Your task to perform on an android device: turn off smart reply in the gmail app Image 0: 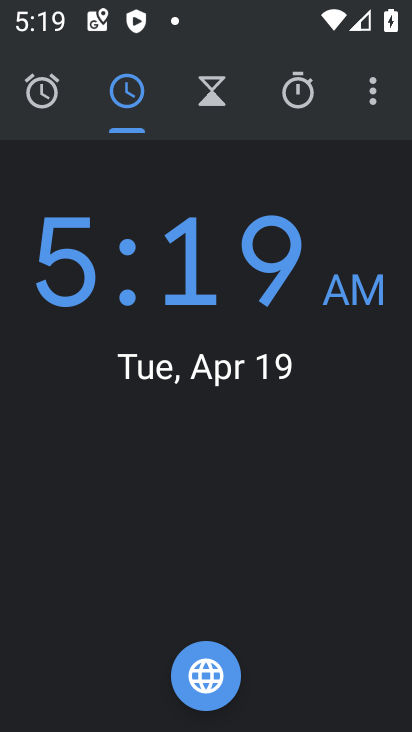
Step 0: press home button
Your task to perform on an android device: turn off smart reply in the gmail app Image 1: 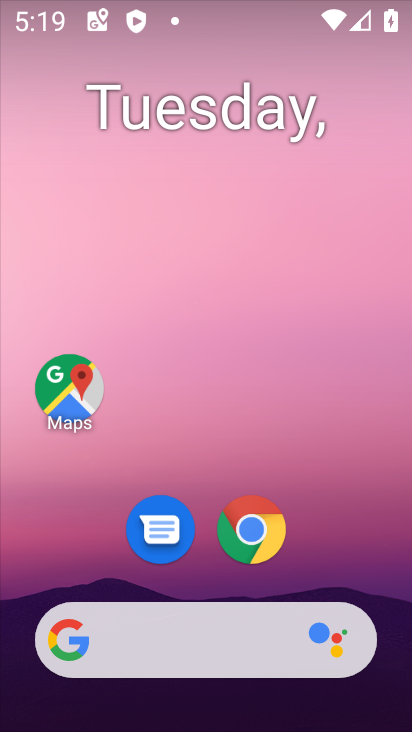
Step 1: drag from (396, 642) to (357, 286)
Your task to perform on an android device: turn off smart reply in the gmail app Image 2: 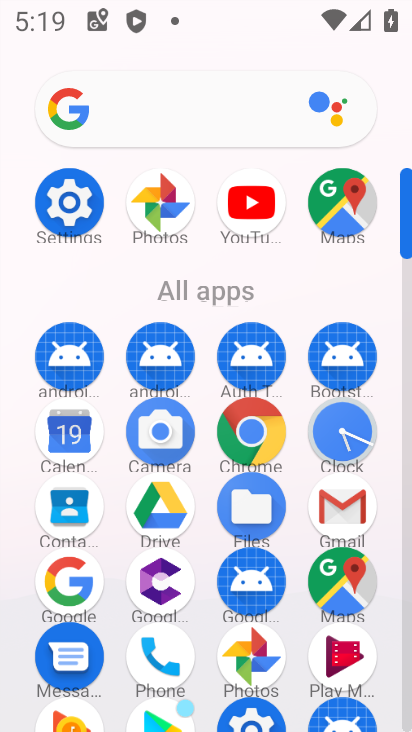
Step 2: click (337, 505)
Your task to perform on an android device: turn off smart reply in the gmail app Image 3: 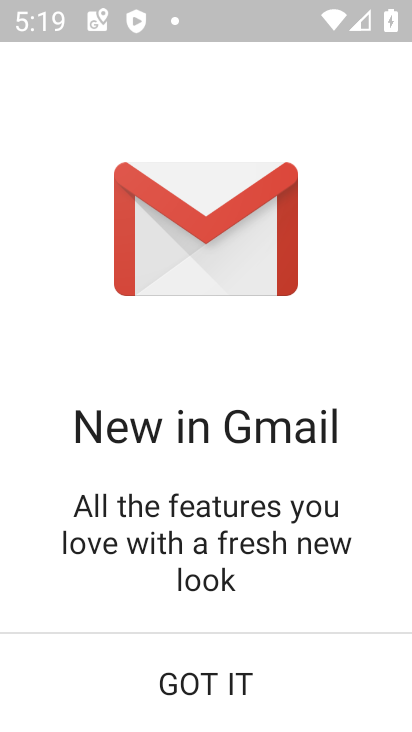
Step 3: click (232, 666)
Your task to perform on an android device: turn off smart reply in the gmail app Image 4: 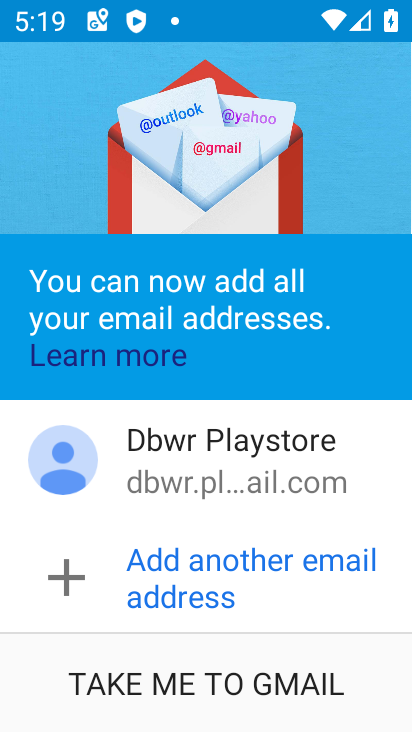
Step 4: click (226, 700)
Your task to perform on an android device: turn off smart reply in the gmail app Image 5: 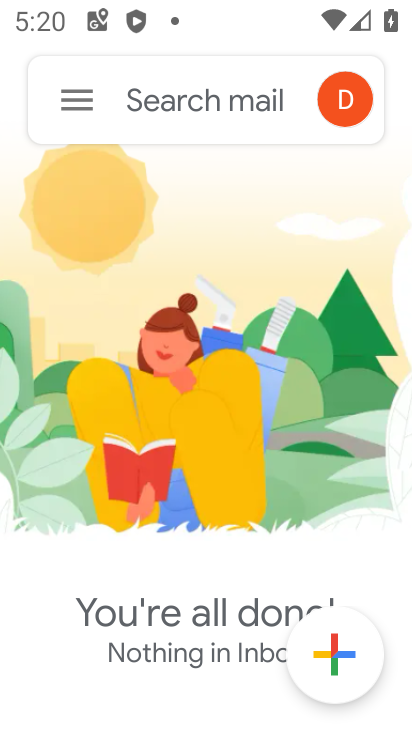
Step 5: click (76, 99)
Your task to perform on an android device: turn off smart reply in the gmail app Image 6: 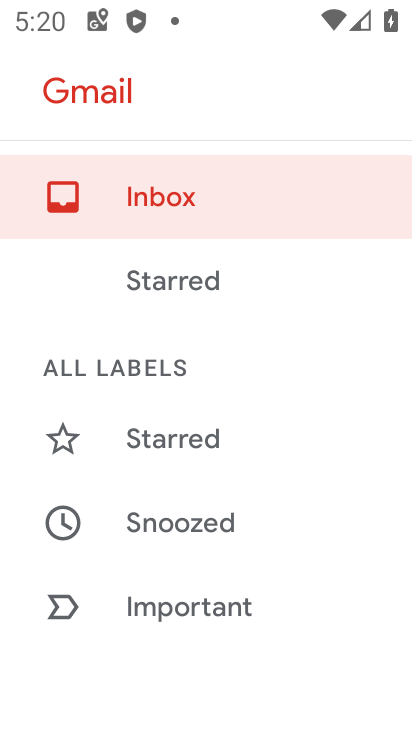
Step 6: drag from (304, 630) to (289, 307)
Your task to perform on an android device: turn off smart reply in the gmail app Image 7: 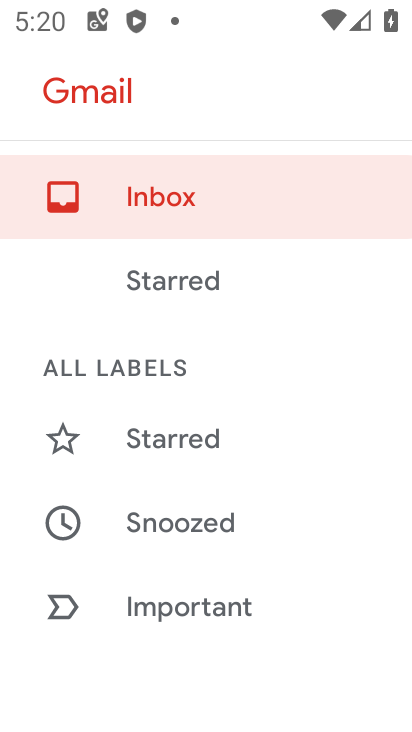
Step 7: drag from (294, 654) to (313, 241)
Your task to perform on an android device: turn off smart reply in the gmail app Image 8: 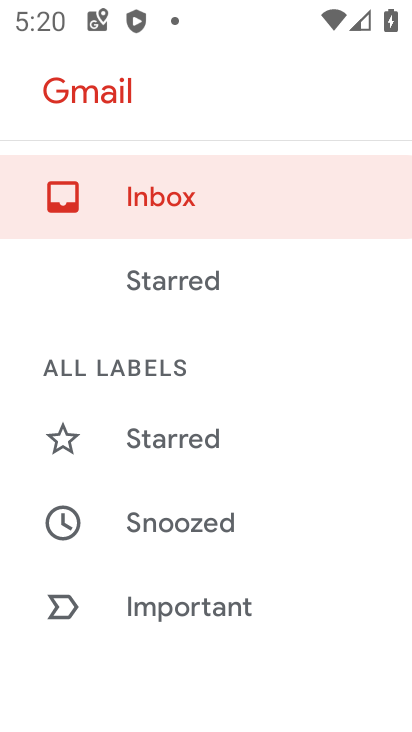
Step 8: drag from (322, 601) to (313, 230)
Your task to perform on an android device: turn off smart reply in the gmail app Image 9: 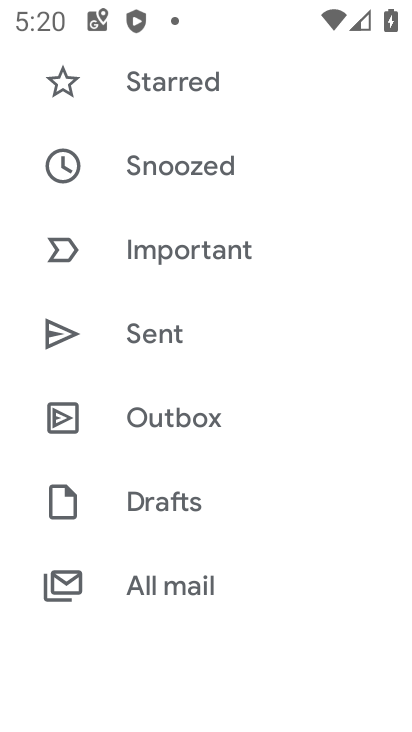
Step 9: drag from (290, 574) to (300, 172)
Your task to perform on an android device: turn off smart reply in the gmail app Image 10: 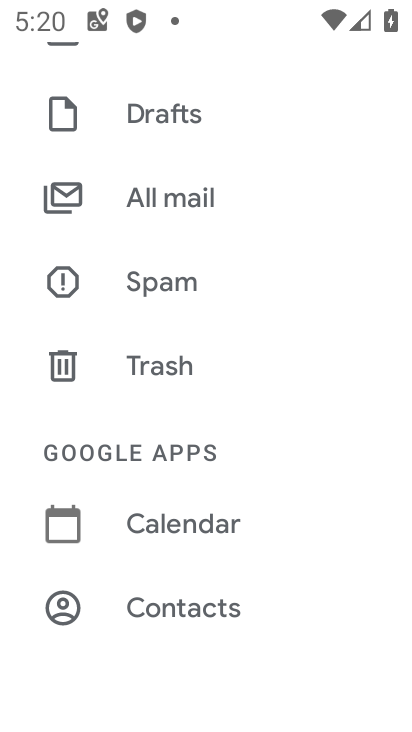
Step 10: drag from (306, 620) to (297, 198)
Your task to perform on an android device: turn off smart reply in the gmail app Image 11: 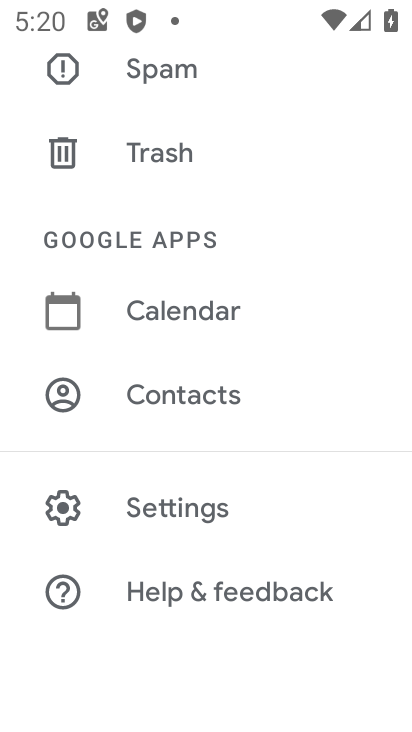
Step 11: click (173, 508)
Your task to perform on an android device: turn off smart reply in the gmail app Image 12: 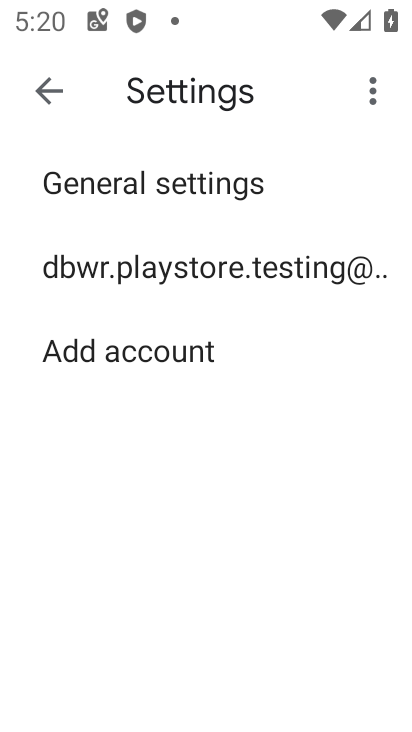
Step 12: click (113, 268)
Your task to perform on an android device: turn off smart reply in the gmail app Image 13: 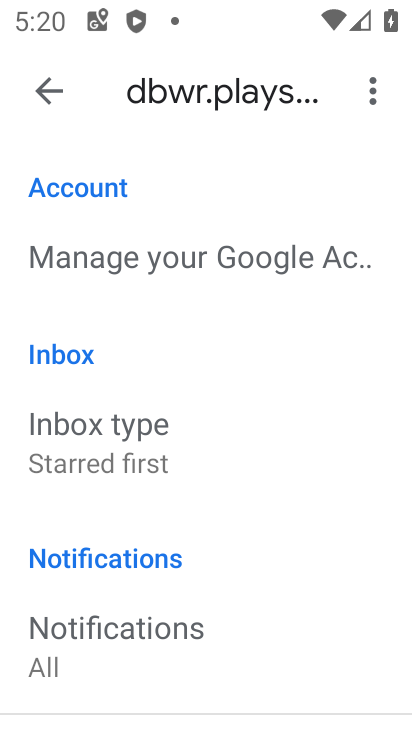
Step 13: drag from (286, 620) to (288, 196)
Your task to perform on an android device: turn off smart reply in the gmail app Image 14: 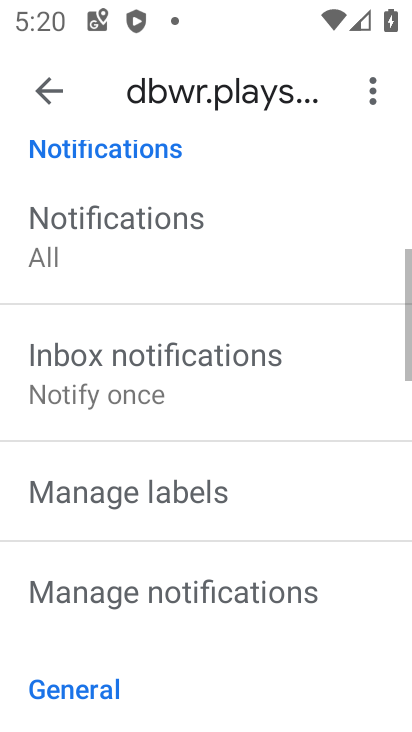
Step 14: drag from (280, 670) to (269, 136)
Your task to perform on an android device: turn off smart reply in the gmail app Image 15: 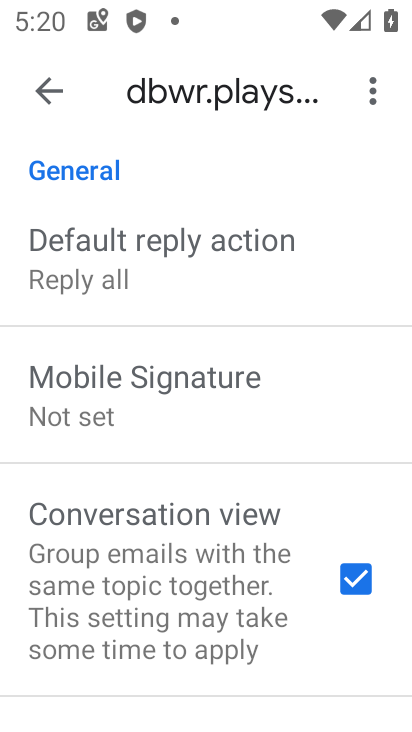
Step 15: drag from (279, 650) to (286, 240)
Your task to perform on an android device: turn off smart reply in the gmail app Image 16: 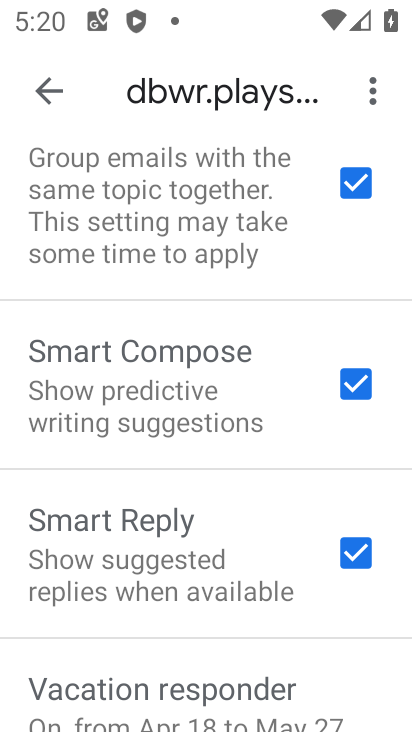
Step 16: drag from (249, 619) to (266, 180)
Your task to perform on an android device: turn off smart reply in the gmail app Image 17: 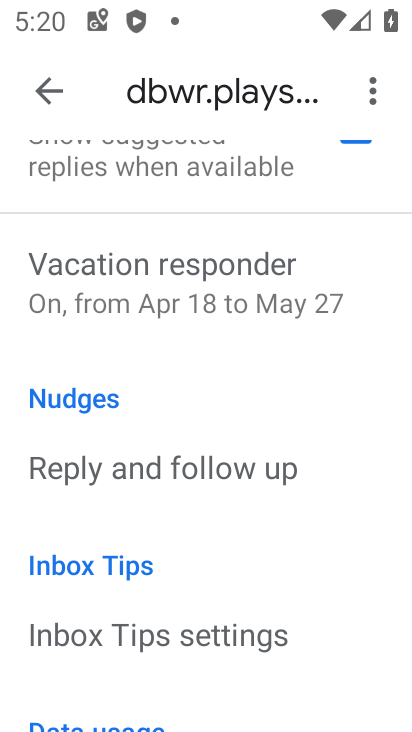
Step 17: drag from (294, 257) to (296, 570)
Your task to perform on an android device: turn off smart reply in the gmail app Image 18: 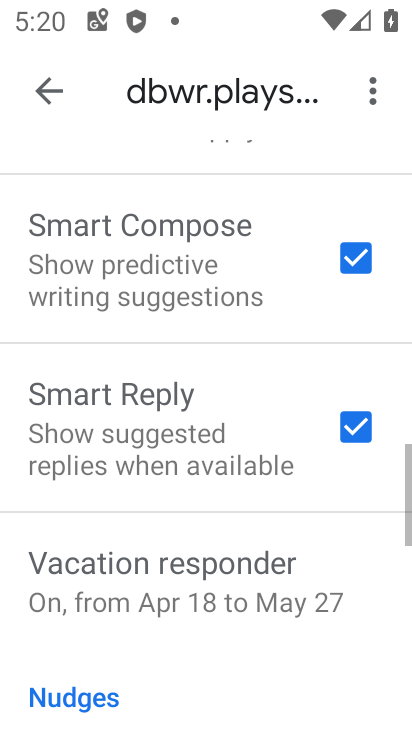
Step 18: drag from (292, 265) to (275, 575)
Your task to perform on an android device: turn off smart reply in the gmail app Image 19: 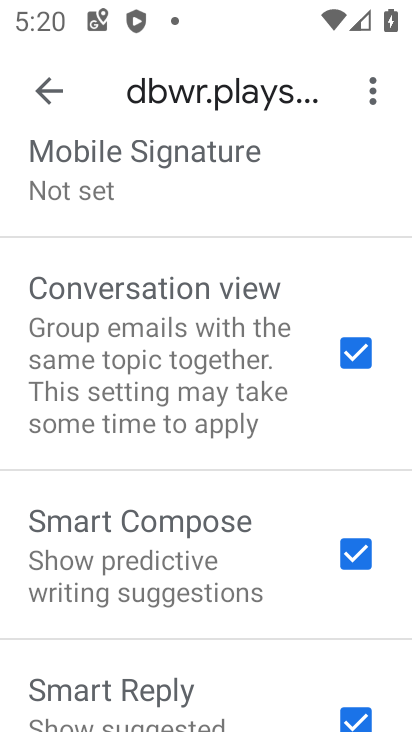
Step 19: click (351, 709)
Your task to perform on an android device: turn off smart reply in the gmail app Image 20: 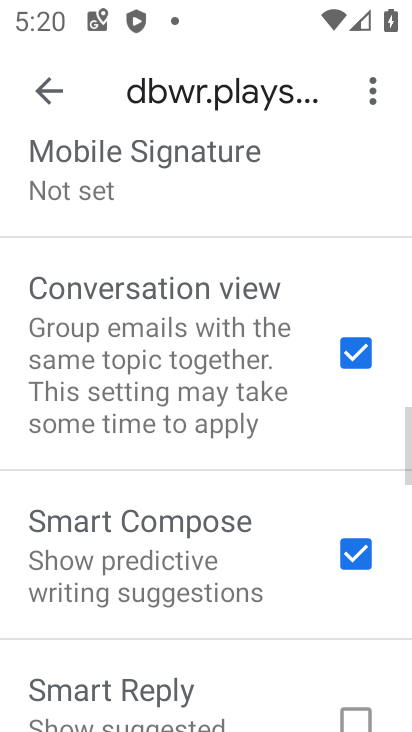
Step 20: task complete